Your task to perform on an android device: Do I have any events tomorrow? Image 0: 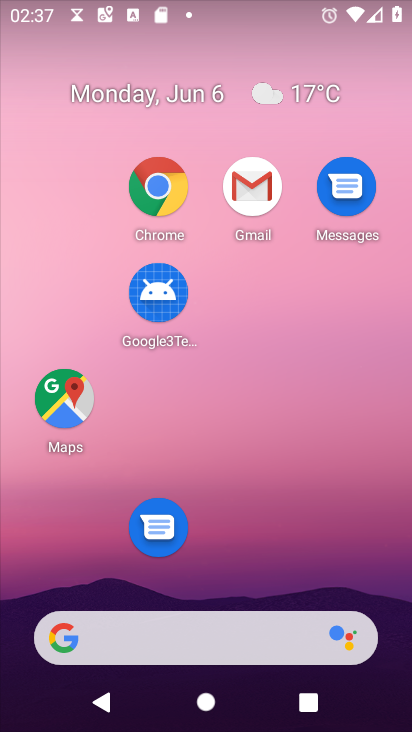
Step 0: drag from (248, 544) to (230, 199)
Your task to perform on an android device: Do I have any events tomorrow? Image 1: 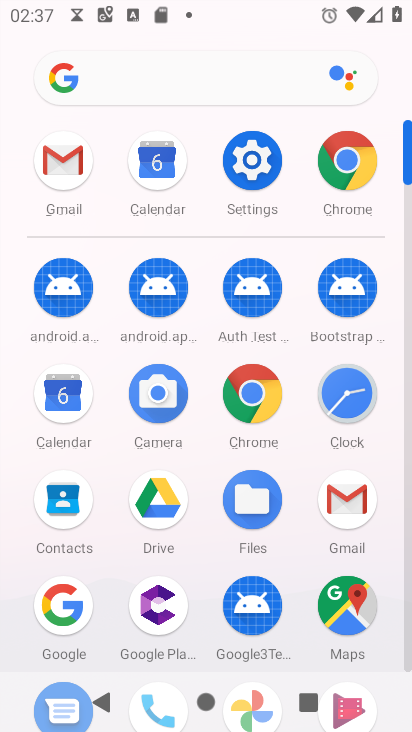
Step 1: click (151, 146)
Your task to perform on an android device: Do I have any events tomorrow? Image 2: 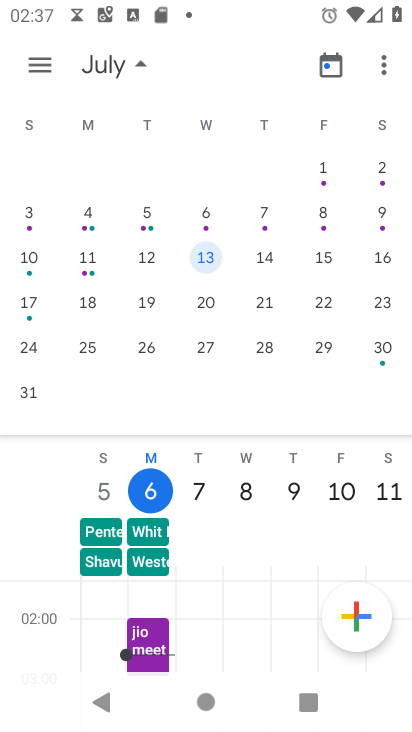
Step 2: drag from (241, 84) to (407, 85)
Your task to perform on an android device: Do I have any events tomorrow? Image 3: 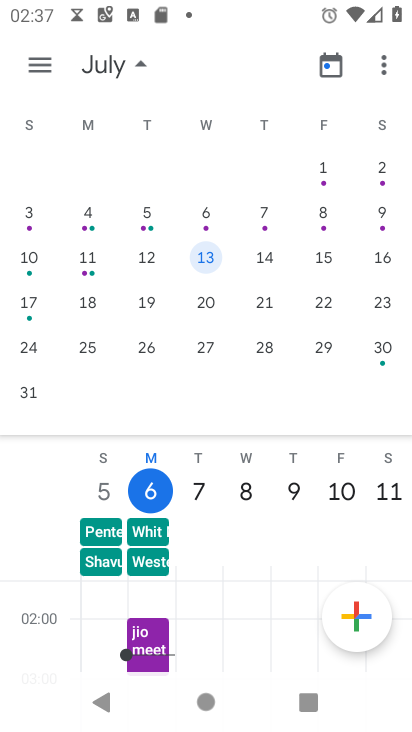
Step 3: drag from (79, 187) to (399, 159)
Your task to perform on an android device: Do I have any events tomorrow? Image 4: 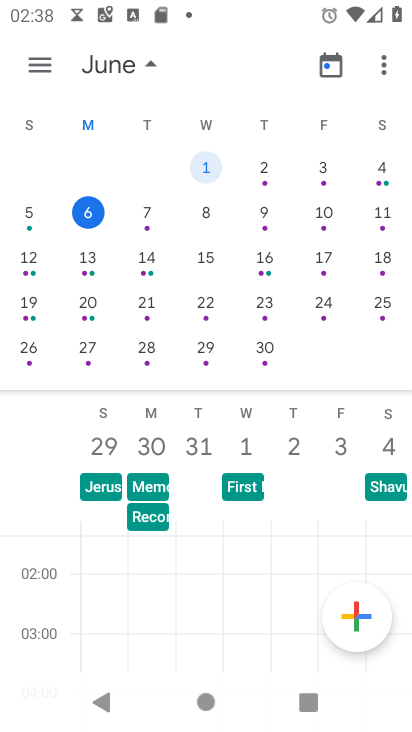
Step 4: click (142, 220)
Your task to perform on an android device: Do I have any events tomorrow? Image 5: 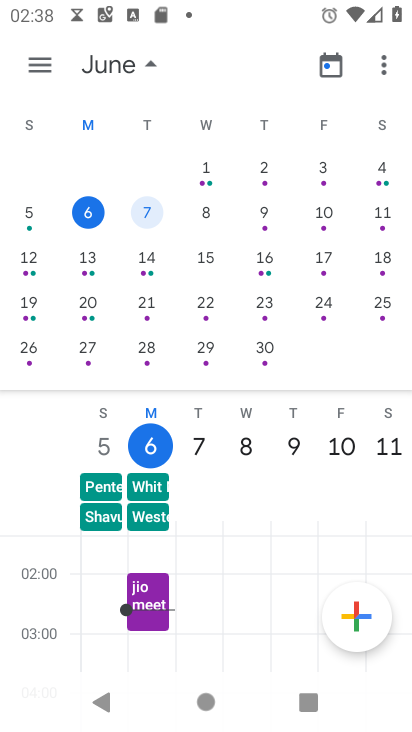
Step 5: click (197, 434)
Your task to perform on an android device: Do I have any events tomorrow? Image 6: 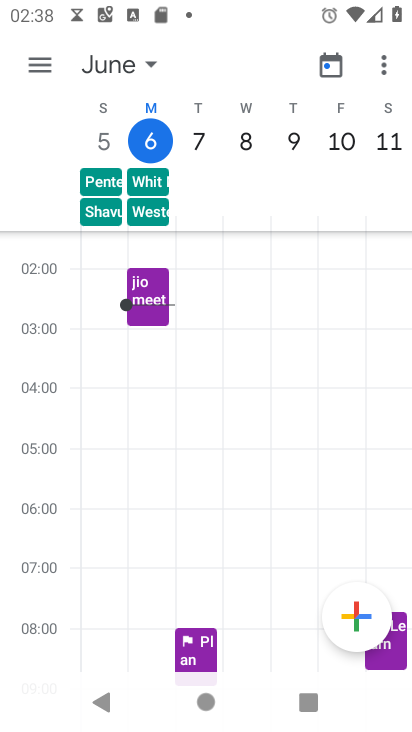
Step 6: click (200, 135)
Your task to perform on an android device: Do I have any events tomorrow? Image 7: 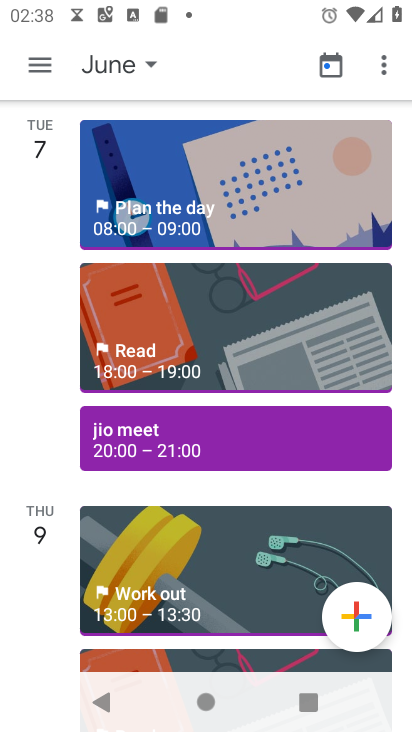
Step 7: click (184, 441)
Your task to perform on an android device: Do I have any events tomorrow? Image 8: 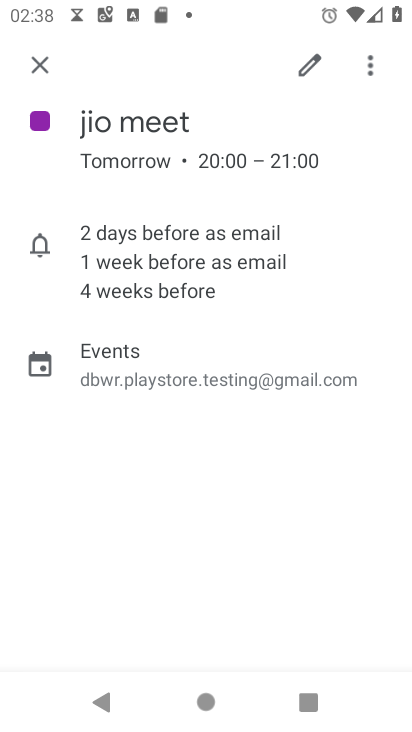
Step 8: click (36, 63)
Your task to perform on an android device: Do I have any events tomorrow? Image 9: 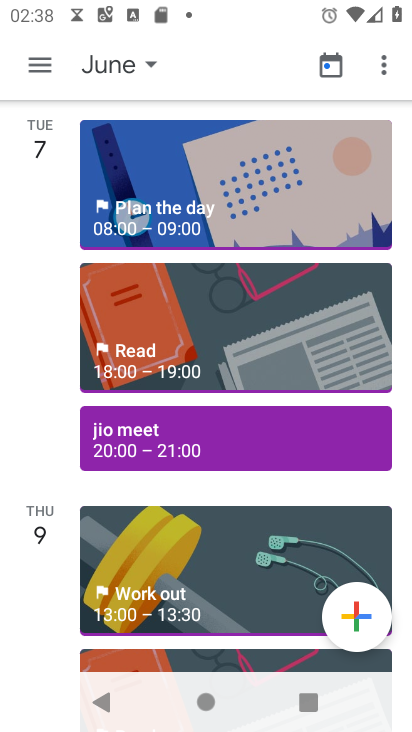
Step 9: click (36, 63)
Your task to perform on an android device: Do I have any events tomorrow? Image 10: 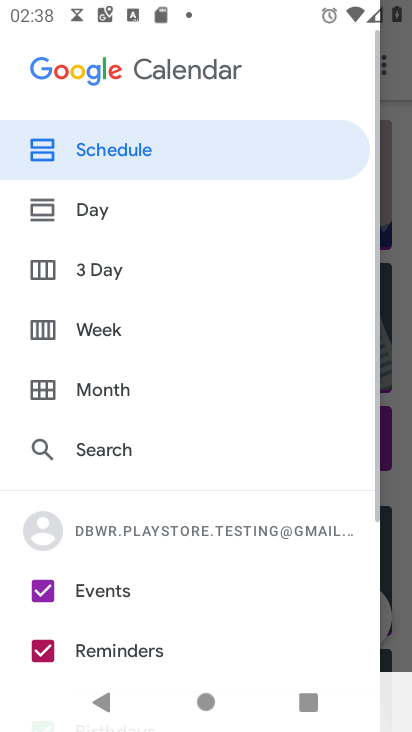
Step 10: task complete